Your task to perform on an android device: Go to calendar. Show me events next week Image 0: 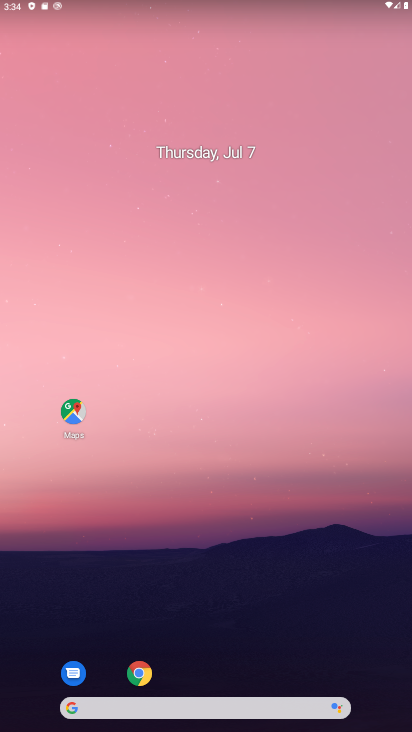
Step 0: drag from (223, 671) to (268, 58)
Your task to perform on an android device: Go to calendar. Show me events next week Image 1: 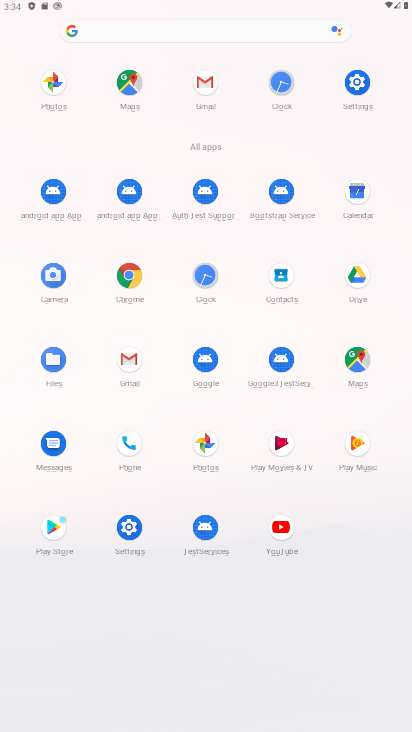
Step 1: click (351, 188)
Your task to perform on an android device: Go to calendar. Show me events next week Image 2: 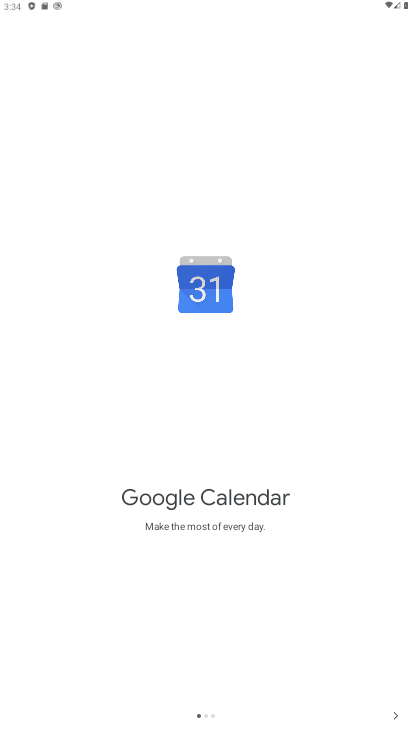
Step 2: click (397, 709)
Your task to perform on an android device: Go to calendar. Show me events next week Image 3: 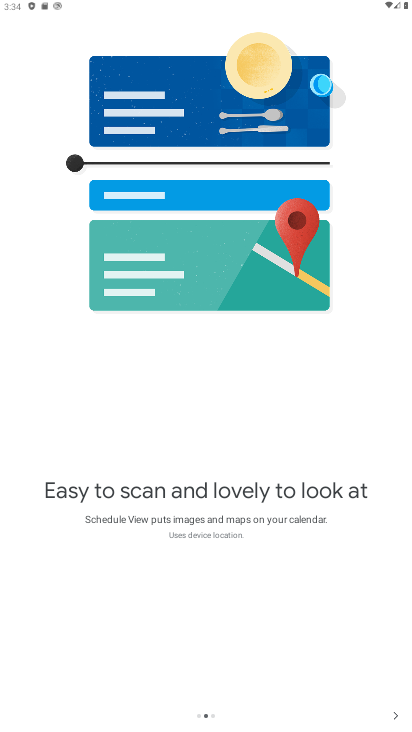
Step 3: click (388, 713)
Your task to perform on an android device: Go to calendar. Show me events next week Image 4: 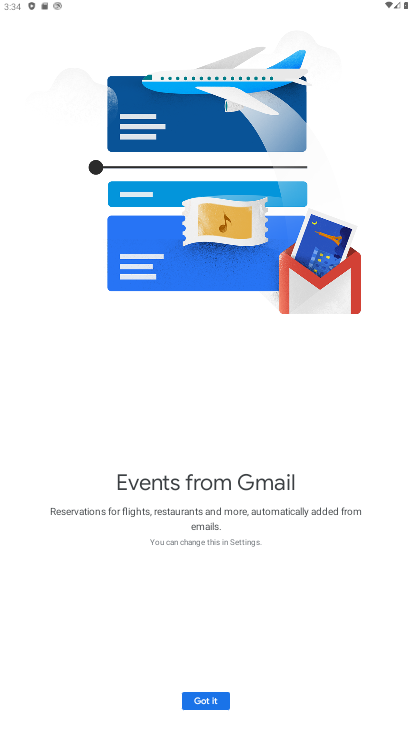
Step 4: click (208, 699)
Your task to perform on an android device: Go to calendar. Show me events next week Image 5: 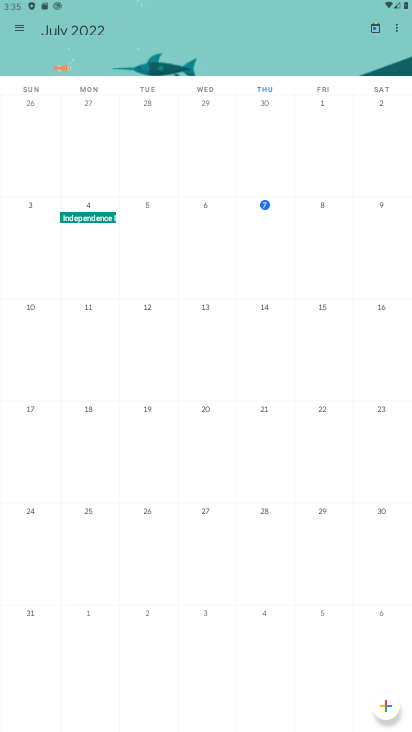
Step 5: click (25, 332)
Your task to perform on an android device: Go to calendar. Show me events next week Image 6: 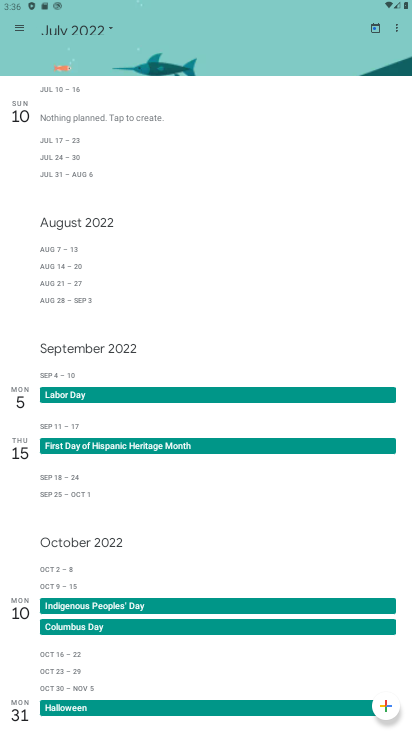
Step 6: press home button
Your task to perform on an android device: Go to calendar. Show me events next week Image 7: 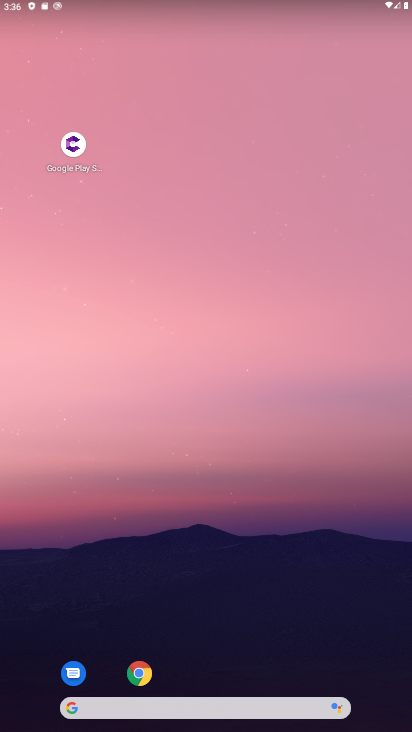
Step 7: drag from (233, 671) to (260, 99)
Your task to perform on an android device: Go to calendar. Show me events next week Image 8: 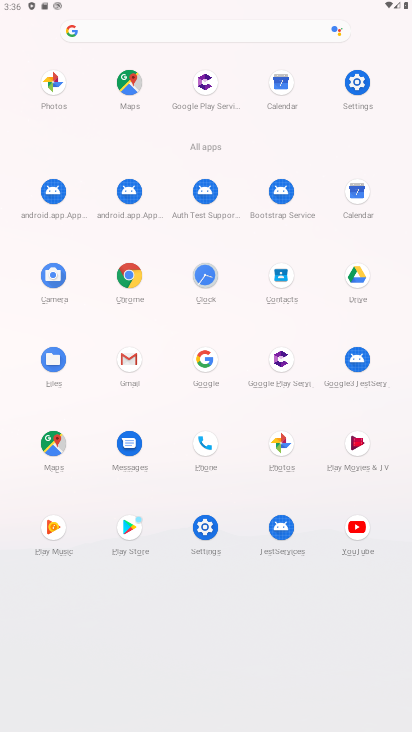
Step 8: click (359, 192)
Your task to perform on an android device: Go to calendar. Show me events next week Image 9: 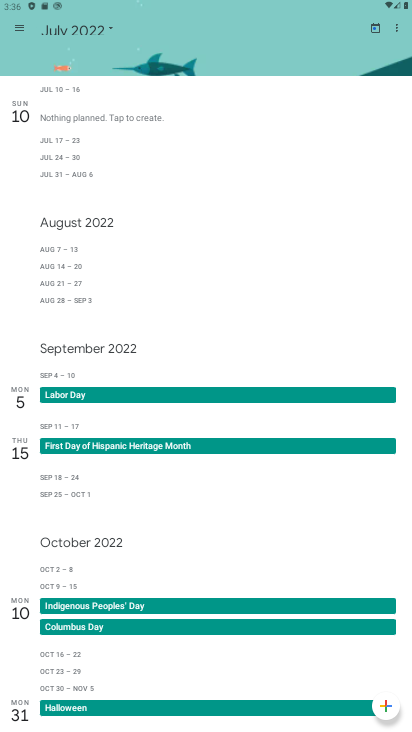
Step 9: click (24, 110)
Your task to perform on an android device: Go to calendar. Show me events next week Image 10: 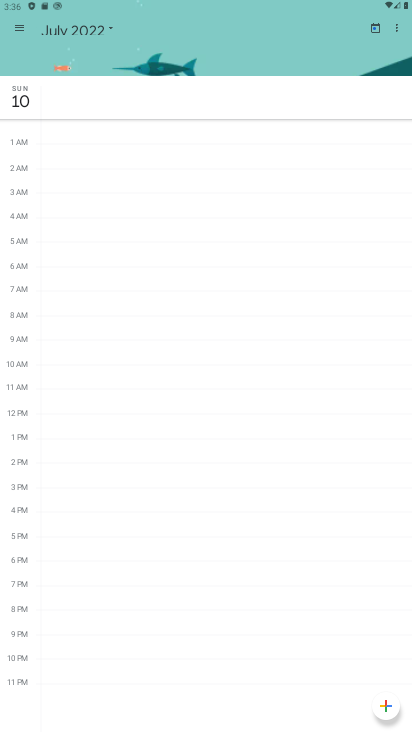
Step 10: click (19, 107)
Your task to perform on an android device: Go to calendar. Show me events next week Image 11: 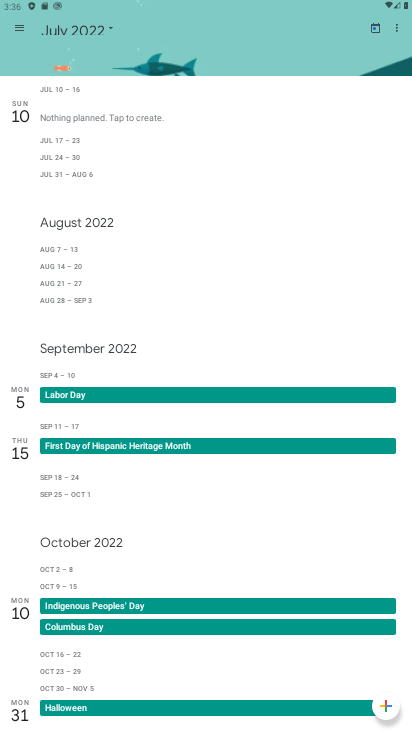
Step 11: task complete